Your task to perform on an android device: find snoozed emails in the gmail app Image 0: 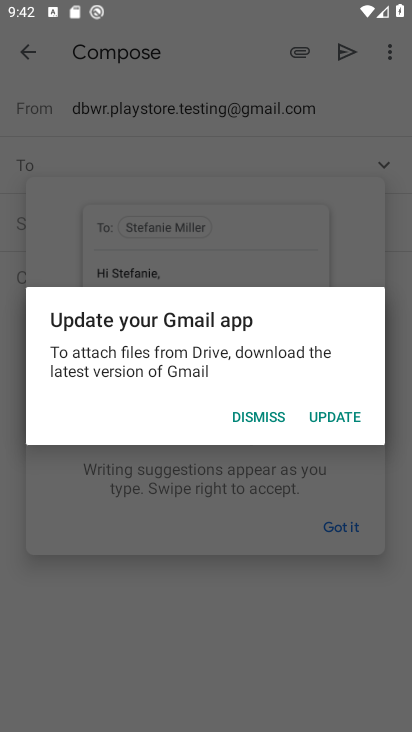
Step 0: press home button
Your task to perform on an android device: find snoozed emails in the gmail app Image 1: 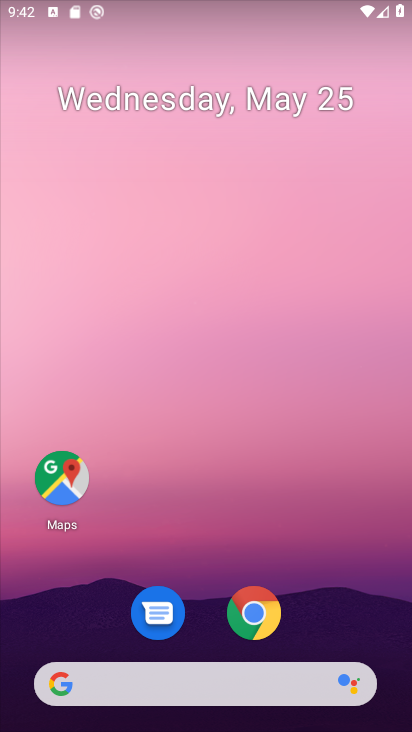
Step 1: drag from (323, 695) to (397, 659)
Your task to perform on an android device: find snoozed emails in the gmail app Image 2: 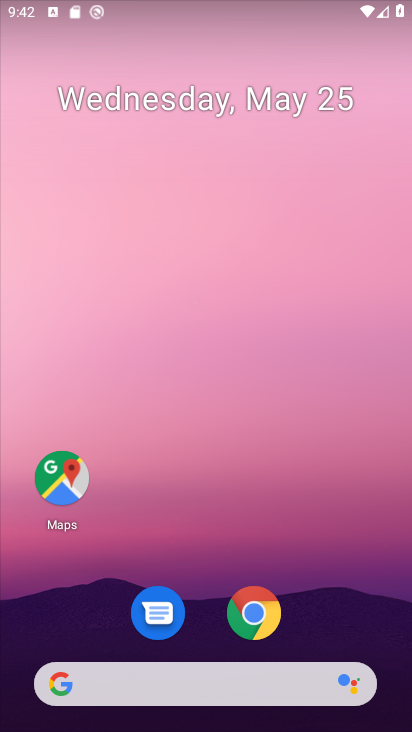
Step 2: drag from (323, 694) to (407, 312)
Your task to perform on an android device: find snoozed emails in the gmail app Image 3: 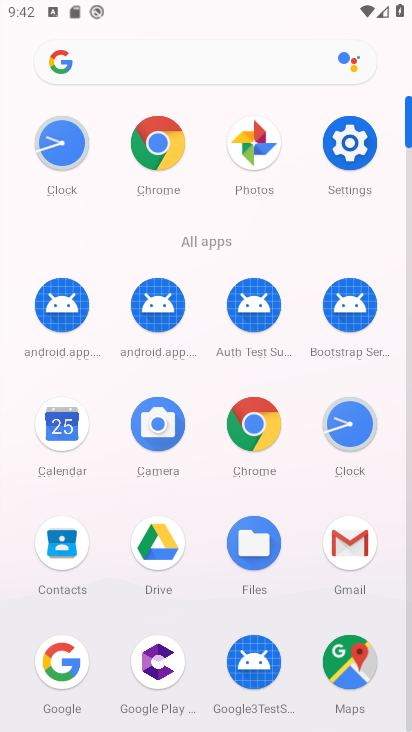
Step 3: click (331, 536)
Your task to perform on an android device: find snoozed emails in the gmail app Image 4: 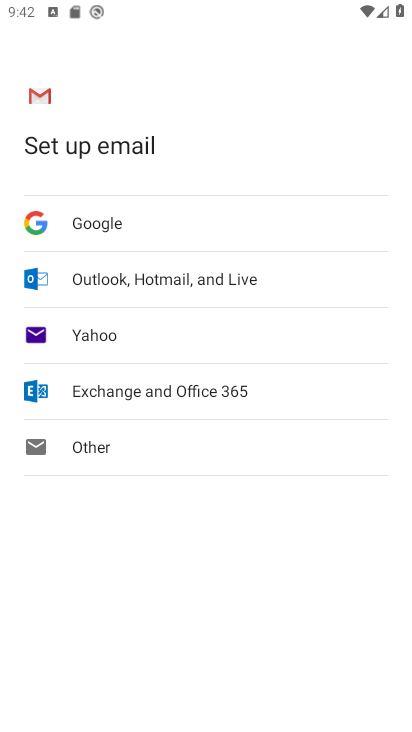
Step 4: press back button
Your task to perform on an android device: find snoozed emails in the gmail app Image 5: 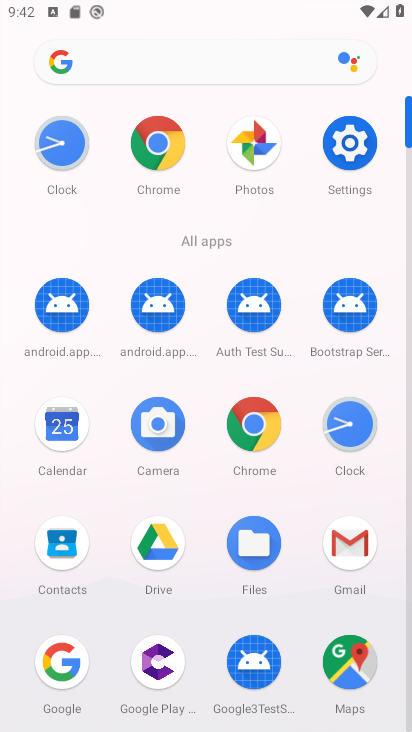
Step 5: click (362, 544)
Your task to perform on an android device: find snoozed emails in the gmail app Image 6: 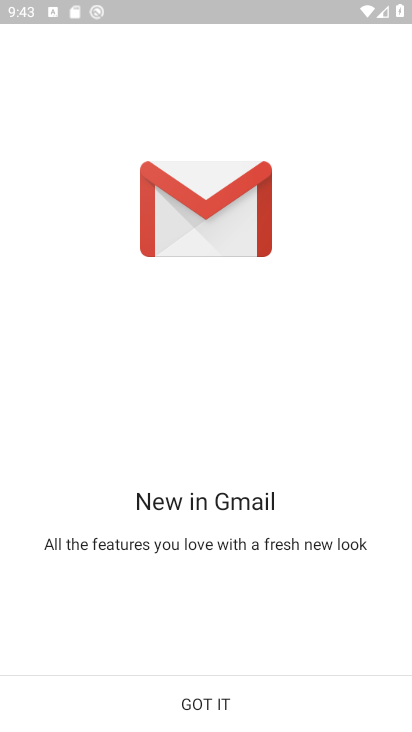
Step 6: click (291, 700)
Your task to perform on an android device: find snoozed emails in the gmail app Image 7: 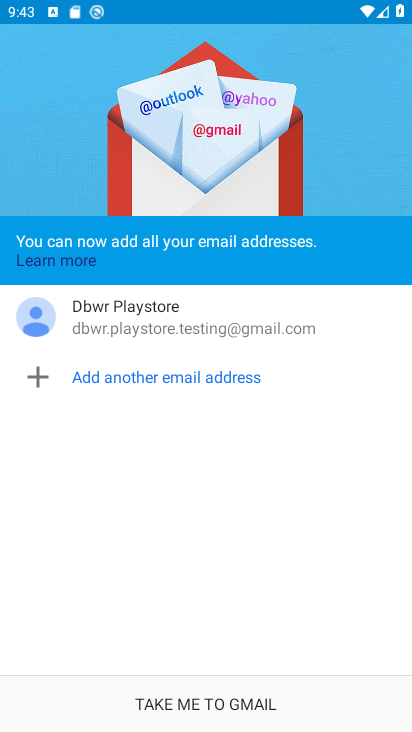
Step 7: click (292, 693)
Your task to perform on an android device: find snoozed emails in the gmail app Image 8: 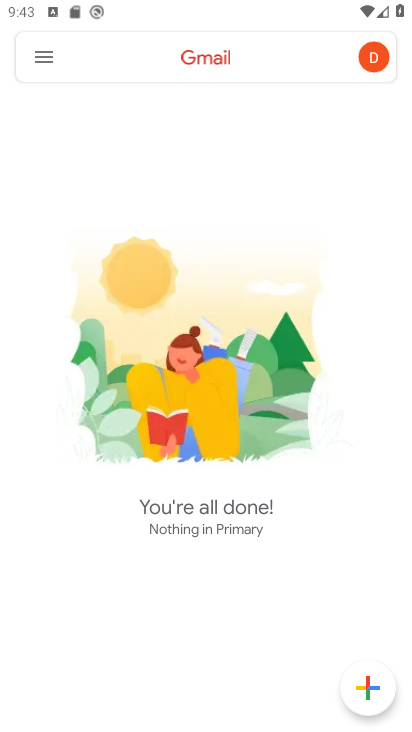
Step 8: click (45, 54)
Your task to perform on an android device: find snoozed emails in the gmail app Image 9: 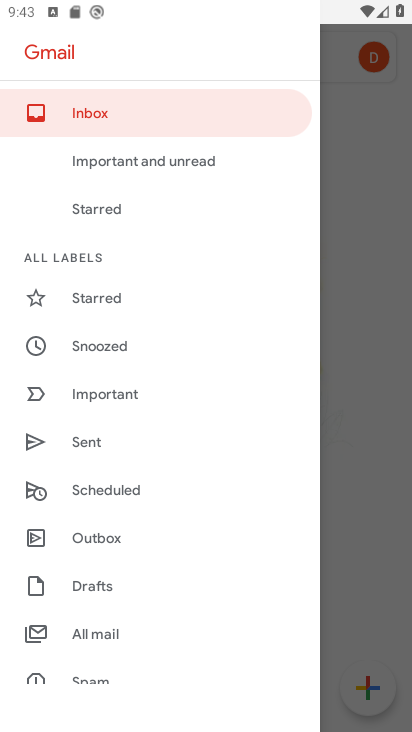
Step 9: click (171, 348)
Your task to perform on an android device: find snoozed emails in the gmail app Image 10: 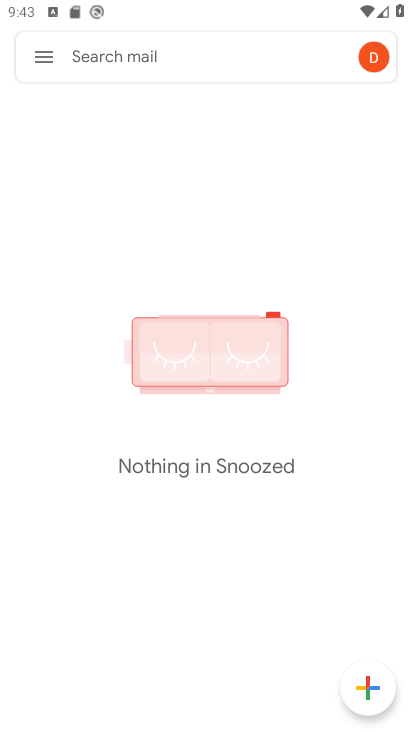
Step 10: press home button
Your task to perform on an android device: find snoozed emails in the gmail app Image 11: 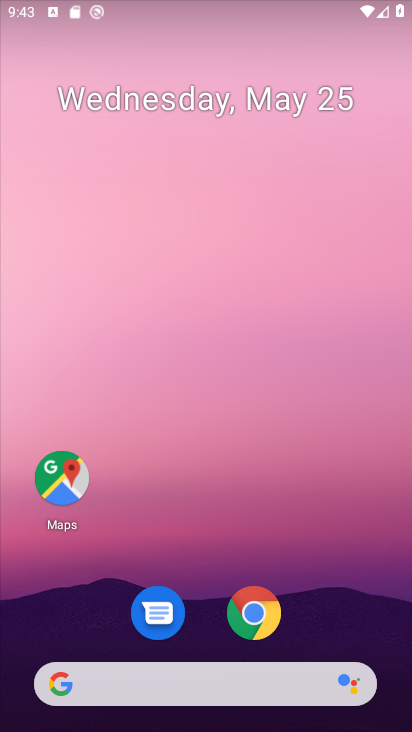
Step 11: drag from (292, 691) to (290, 45)
Your task to perform on an android device: find snoozed emails in the gmail app Image 12: 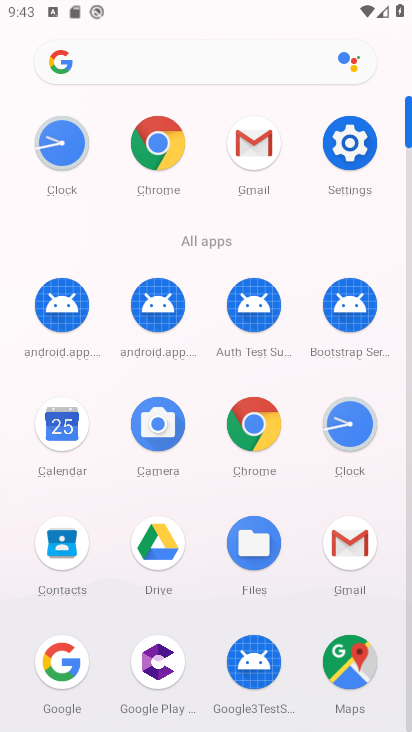
Step 12: click (308, 584)
Your task to perform on an android device: find snoozed emails in the gmail app Image 13: 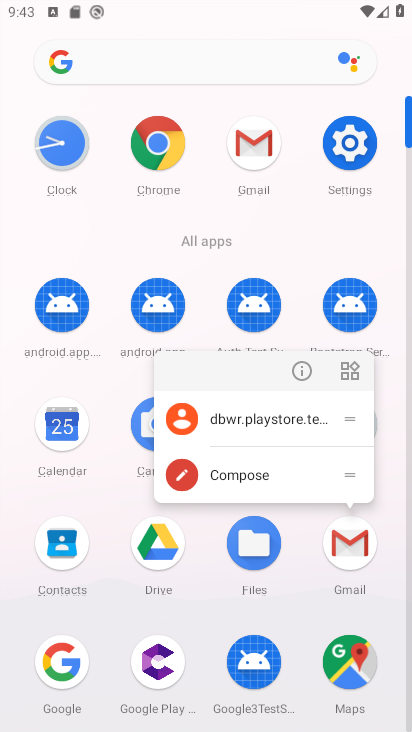
Step 13: click (334, 552)
Your task to perform on an android device: find snoozed emails in the gmail app Image 14: 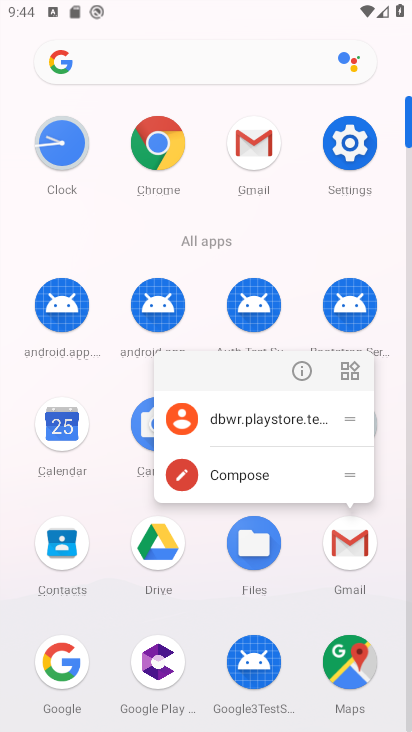
Step 14: task complete